Your task to perform on an android device: set the stopwatch Image 0: 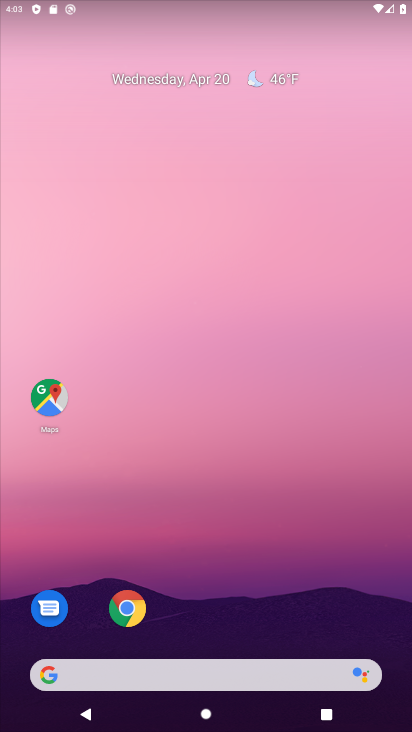
Step 0: drag from (237, 657) to (174, 18)
Your task to perform on an android device: set the stopwatch Image 1: 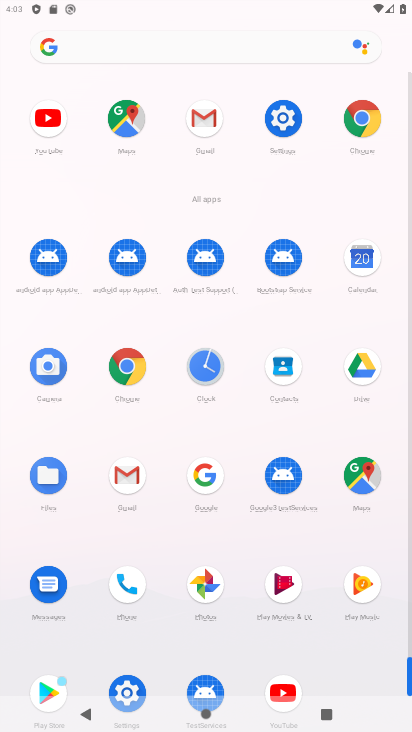
Step 1: click (195, 371)
Your task to perform on an android device: set the stopwatch Image 2: 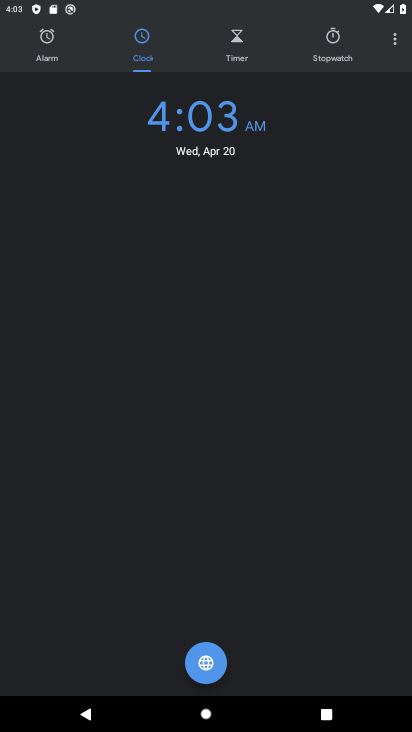
Step 2: click (329, 51)
Your task to perform on an android device: set the stopwatch Image 3: 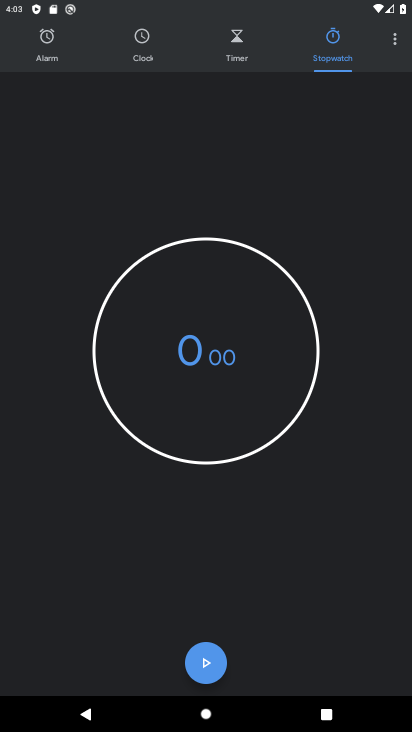
Step 3: click (204, 663)
Your task to perform on an android device: set the stopwatch Image 4: 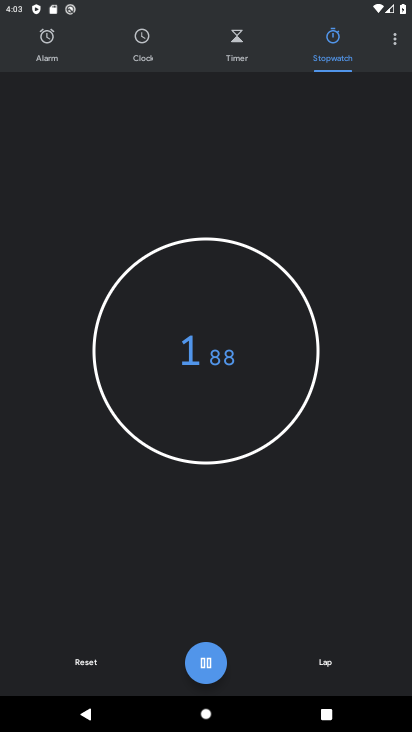
Step 4: click (203, 656)
Your task to perform on an android device: set the stopwatch Image 5: 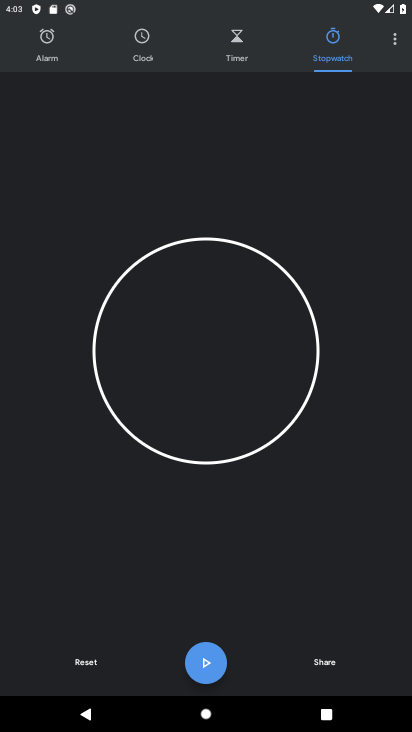
Step 5: task complete